Your task to perform on an android device: Open Google Maps Image 0: 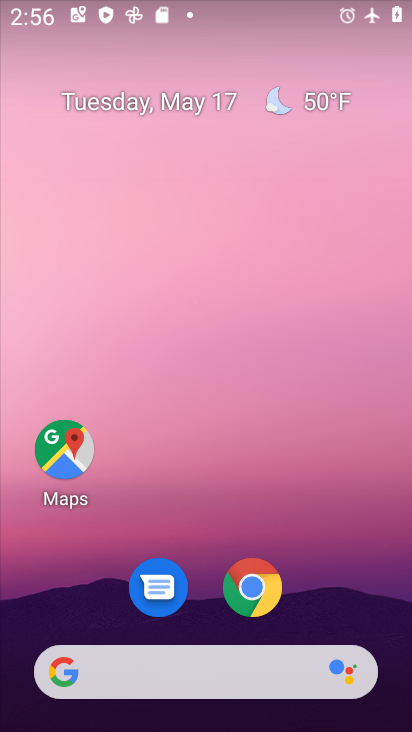
Step 0: drag from (279, 619) to (317, 365)
Your task to perform on an android device: Open Google Maps Image 1: 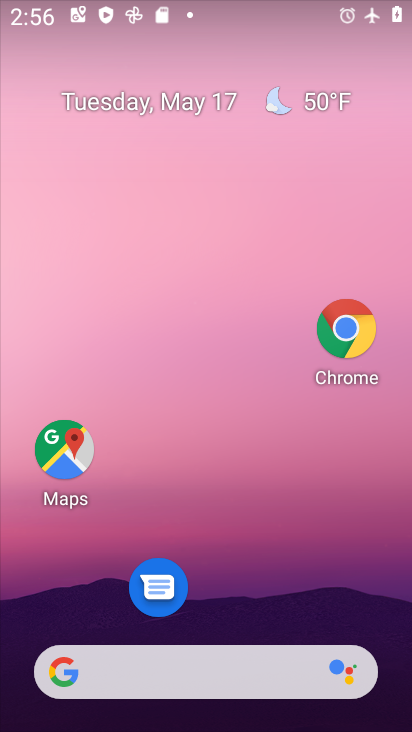
Step 1: click (108, 457)
Your task to perform on an android device: Open Google Maps Image 2: 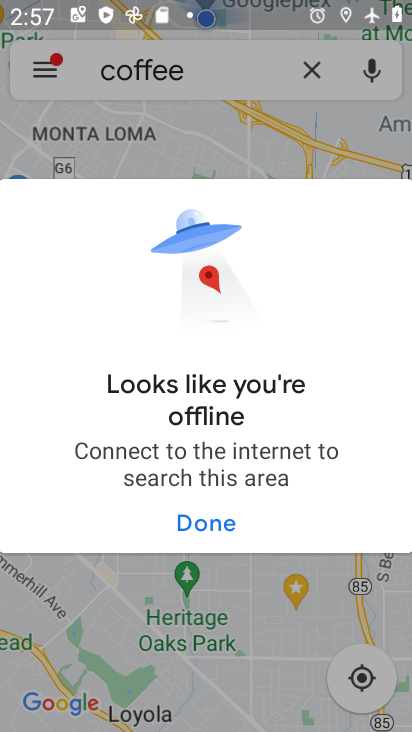
Step 2: task complete